Your task to perform on an android device: Open Chrome and go to the settings page Image 0: 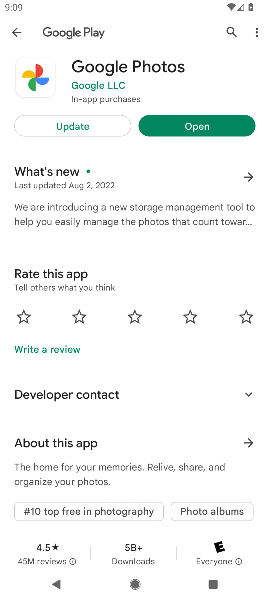
Step 0: press home button
Your task to perform on an android device: Open Chrome and go to the settings page Image 1: 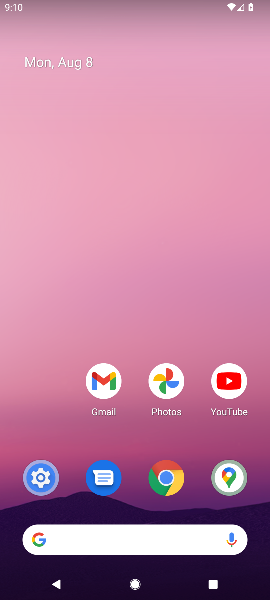
Step 1: click (170, 472)
Your task to perform on an android device: Open Chrome and go to the settings page Image 2: 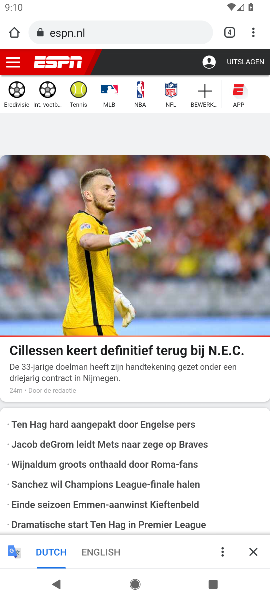
Step 2: task complete